Your task to perform on an android device: empty trash in the gmail app Image 0: 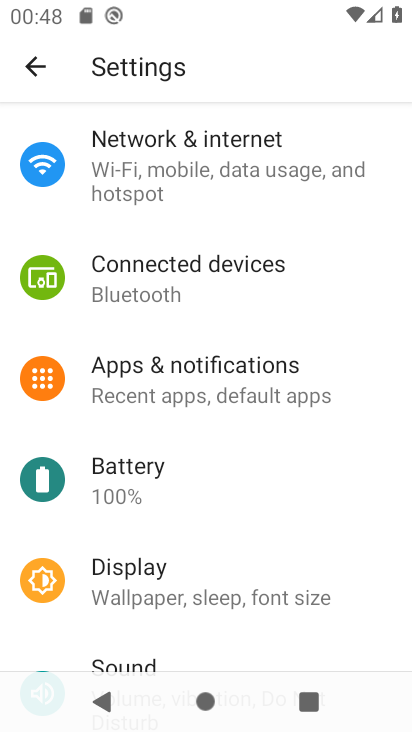
Step 0: press home button
Your task to perform on an android device: empty trash in the gmail app Image 1: 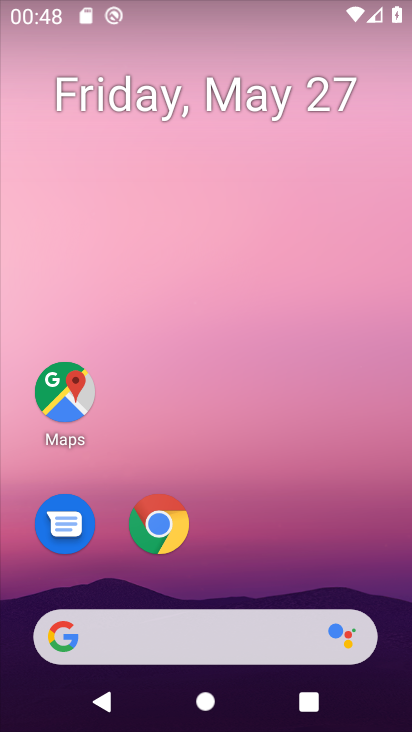
Step 1: drag from (262, 545) to (311, 19)
Your task to perform on an android device: empty trash in the gmail app Image 2: 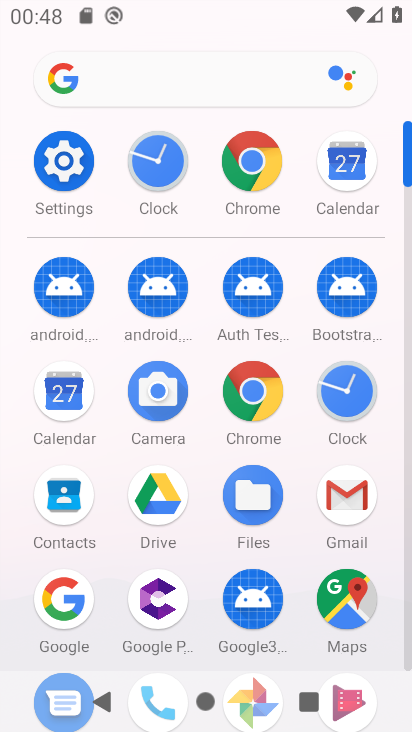
Step 2: click (350, 505)
Your task to perform on an android device: empty trash in the gmail app Image 3: 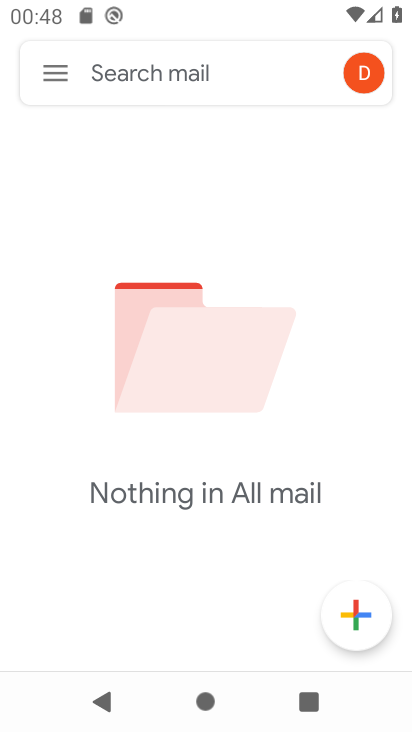
Step 3: click (62, 66)
Your task to perform on an android device: empty trash in the gmail app Image 4: 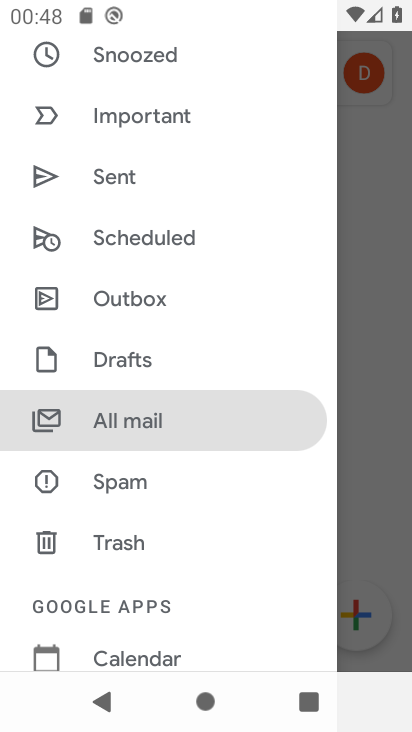
Step 4: click (128, 539)
Your task to perform on an android device: empty trash in the gmail app Image 5: 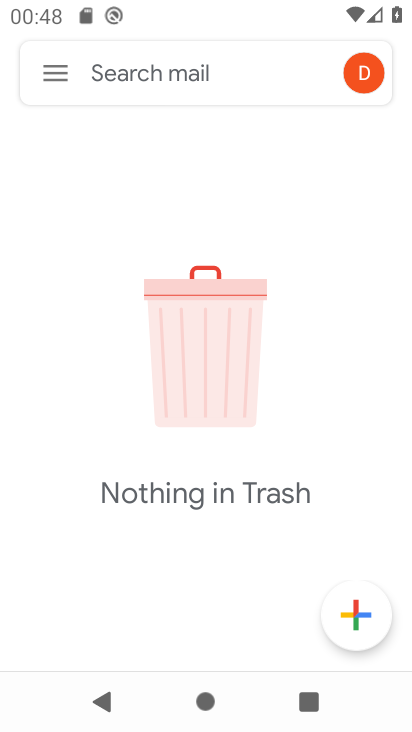
Step 5: task complete